Your task to perform on an android device: turn on location history Image 0: 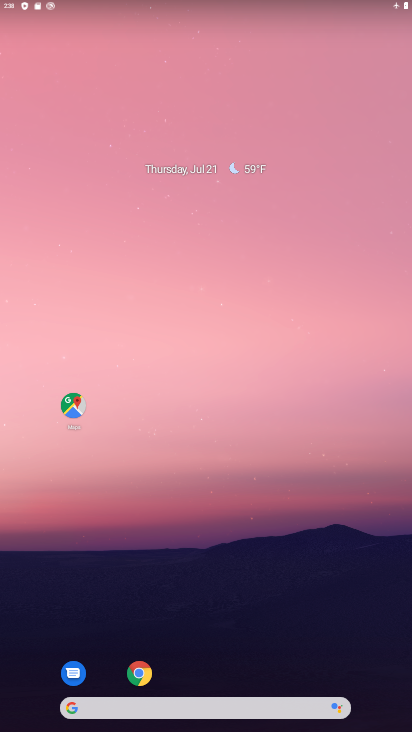
Step 0: click (70, 405)
Your task to perform on an android device: turn on location history Image 1: 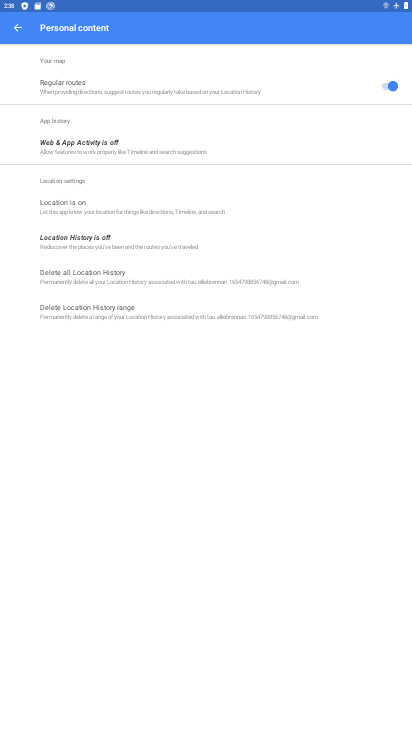
Step 1: click (93, 240)
Your task to perform on an android device: turn on location history Image 2: 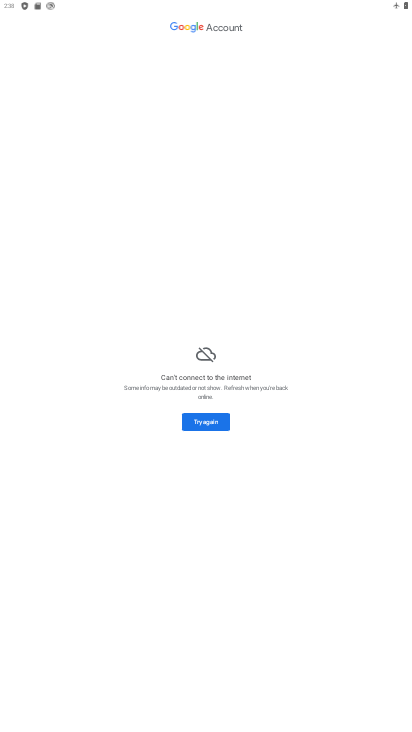
Step 2: click (202, 424)
Your task to perform on an android device: turn on location history Image 3: 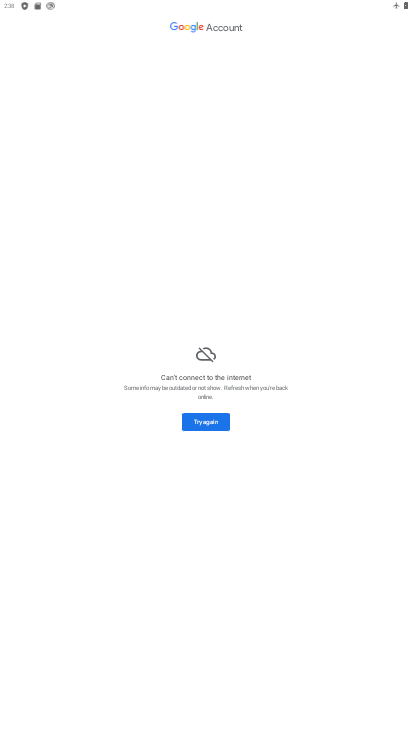
Step 3: click (203, 421)
Your task to perform on an android device: turn on location history Image 4: 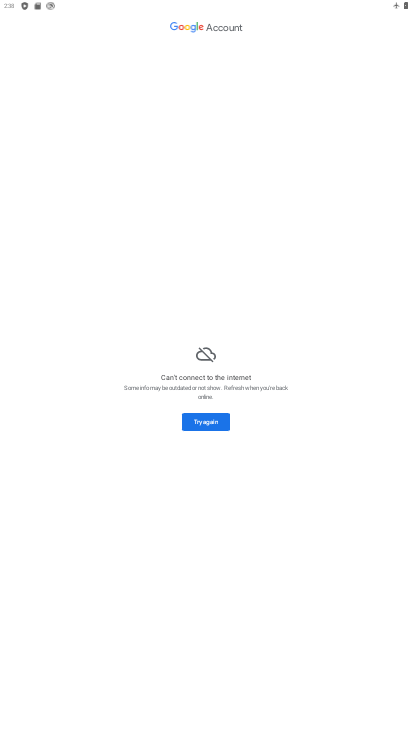
Step 4: task complete